Your task to perform on an android device: delete a single message in the gmail app Image 0: 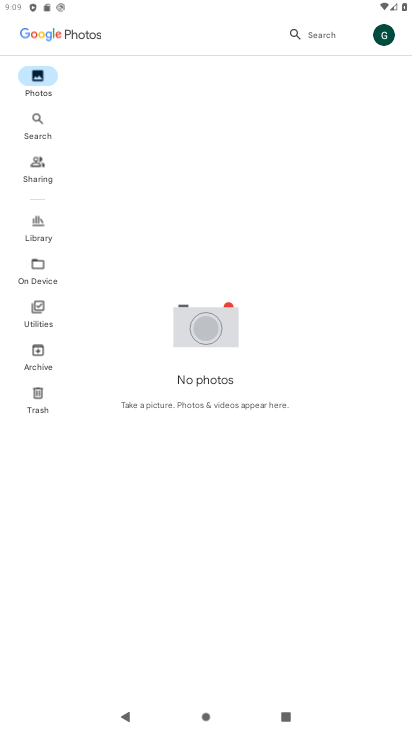
Step 0: press home button
Your task to perform on an android device: delete a single message in the gmail app Image 1: 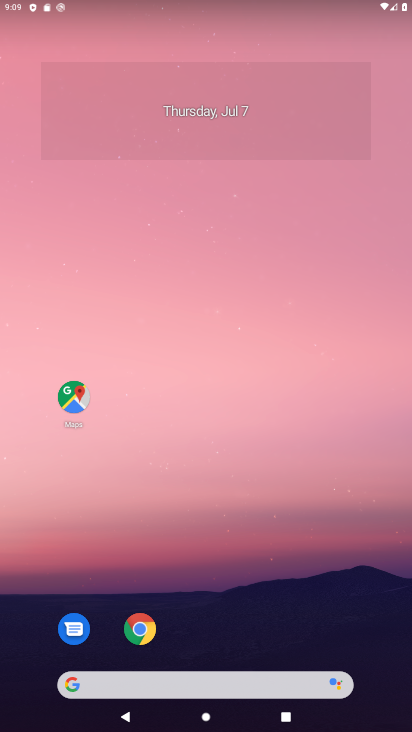
Step 1: drag from (241, 580) to (185, 121)
Your task to perform on an android device: delete a single message in the gmail app Image 2: 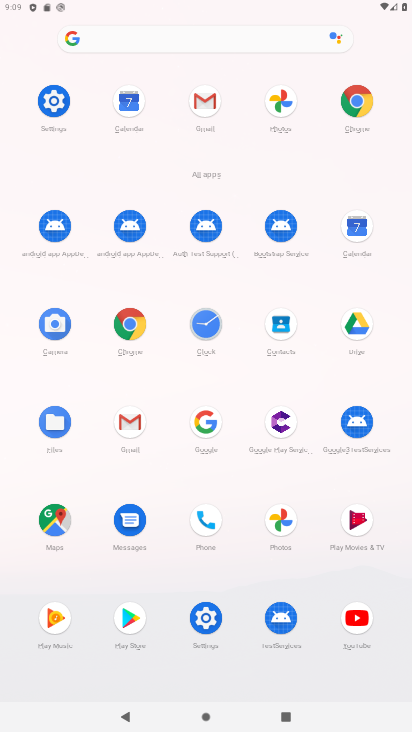
Step 2: click (122, 420)
Your task to perform on an android device: delete a single message in the gmail app Image 3: 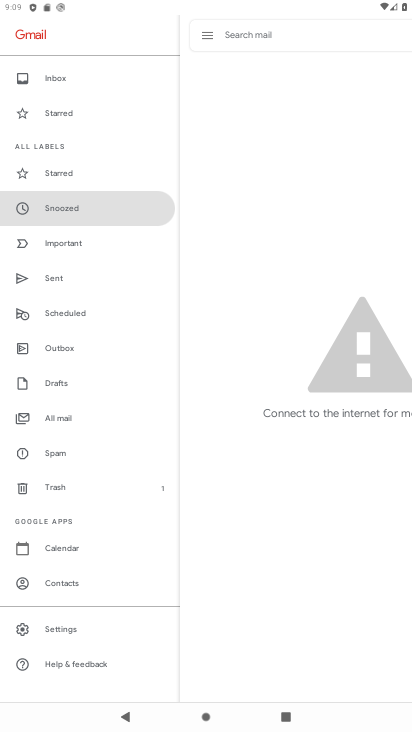
Step 3: click (61, 417)
Your task to perform on an android device: delete a single message in the gmail app Image 4: 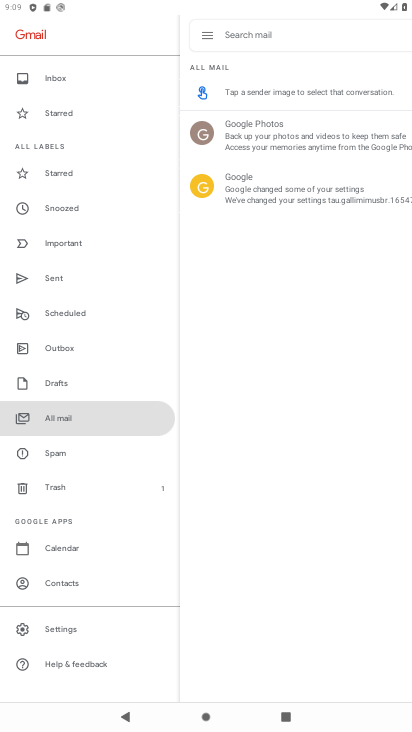
Step 4: click (254, 128)
Your task to perform on an android device: delete a single message in the gmail app Image 5: 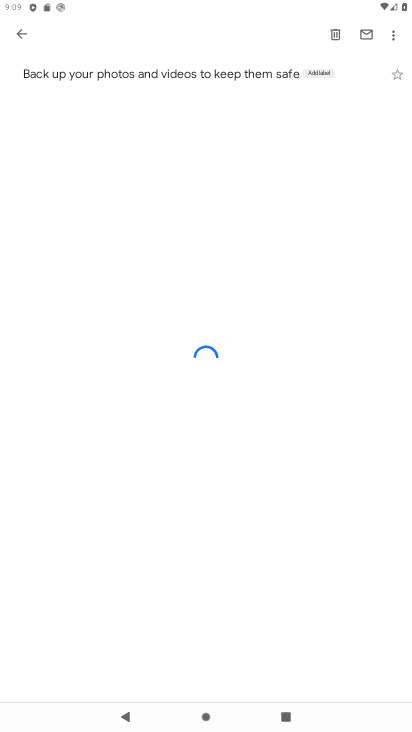
Step 5: click (332, 30)
Your task to perform on an android device: delete a single message in the gmail app Image 6: 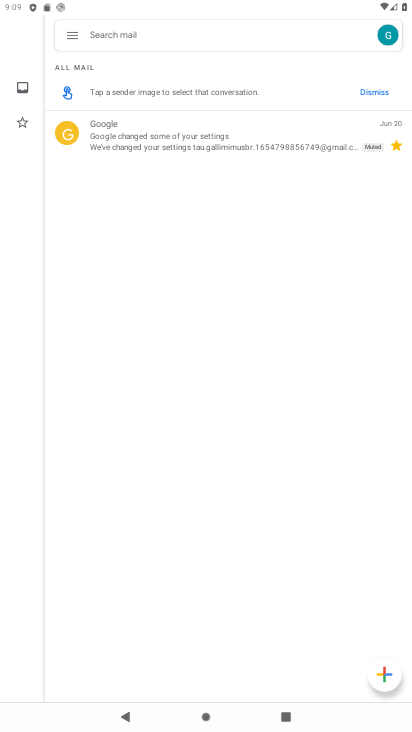
Step 6: task complete